Your task to perform on an android device: What is the recent news? Image 0: 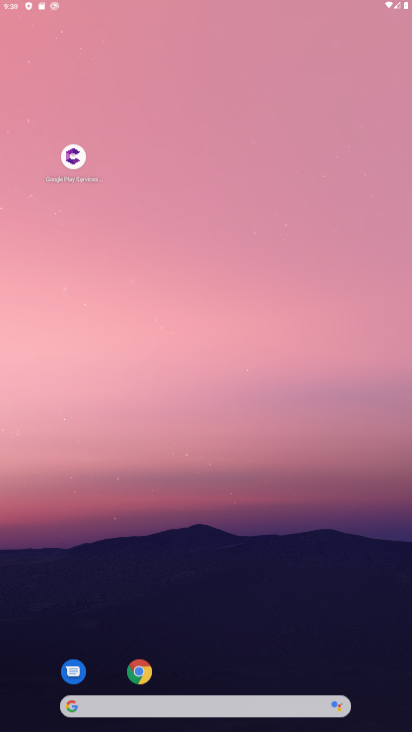
Step 0: drag from (231, 693) to (259, 344)
Your task to perform on an android device: What is the recent news? Image 1: 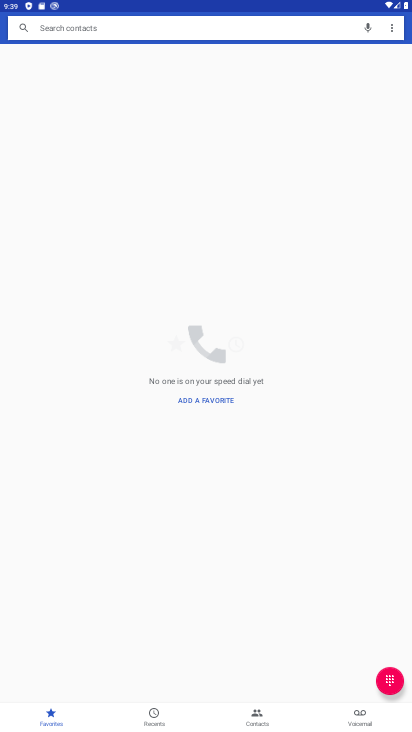
Step 1: press home button
Your task to perform on an android device: What is the recent news? Image 2: 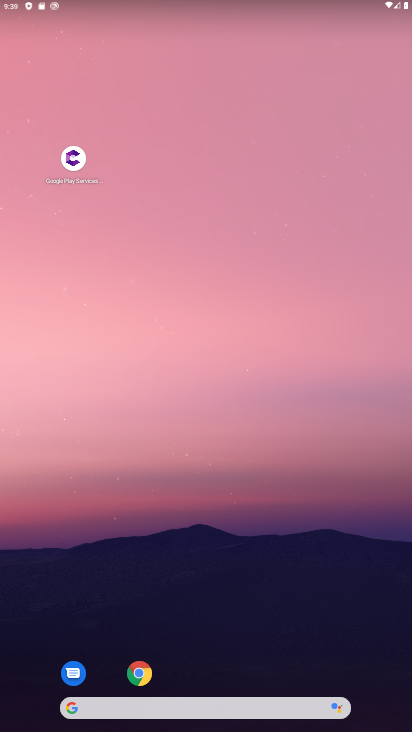
Step 2: drag from (188, 686) to (188, 355)
Your task to perform on an android device: What is the recent news? Image 3: 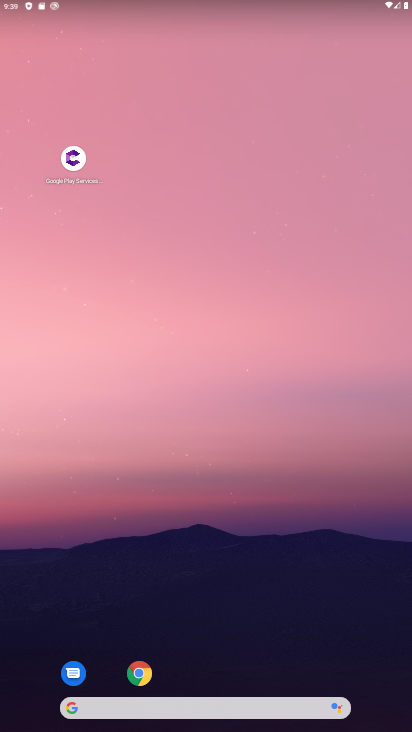
Step 3: drag from (222, 686) to (248, 176)
Your task to perform on an android device: What is the recent news? Image 4: 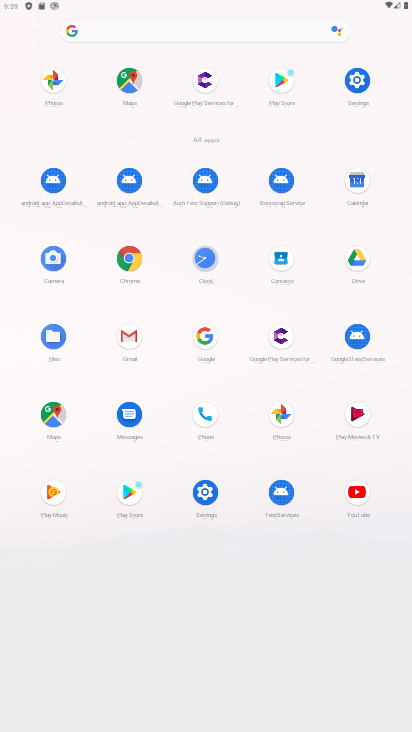
Step 4: click (212, 332)
Your task to perform on an android device: What is the recent news? Image 5: 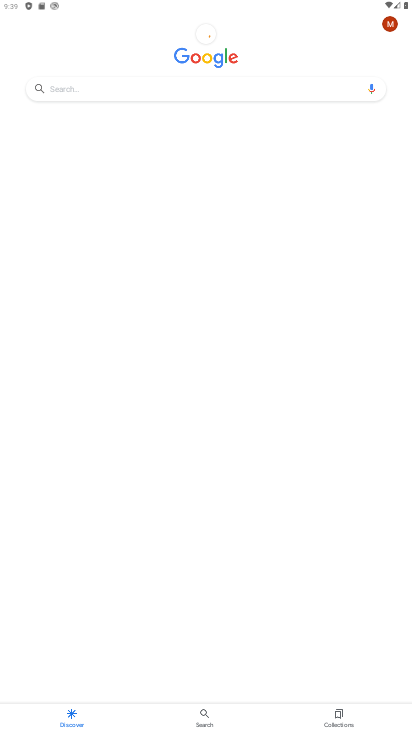
Step 5: click (154, 85)
Your task to perform on an android device: What is the recent news? Image 6: 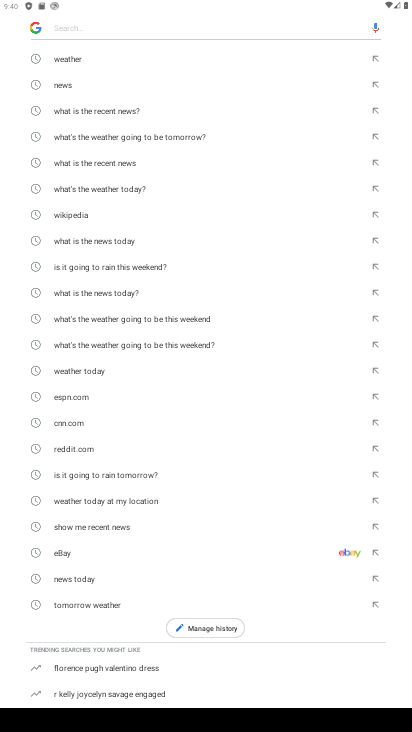
Step 6: click (105, 161)
Your task to perform on an android device: What is the recent news? Image 7: 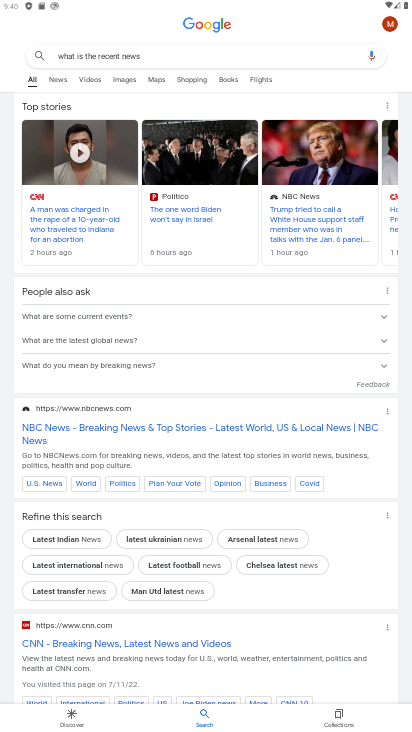
Step 7: task complete